Your task to perform on an android device: Clear the cart on newegg.com. Image 0: 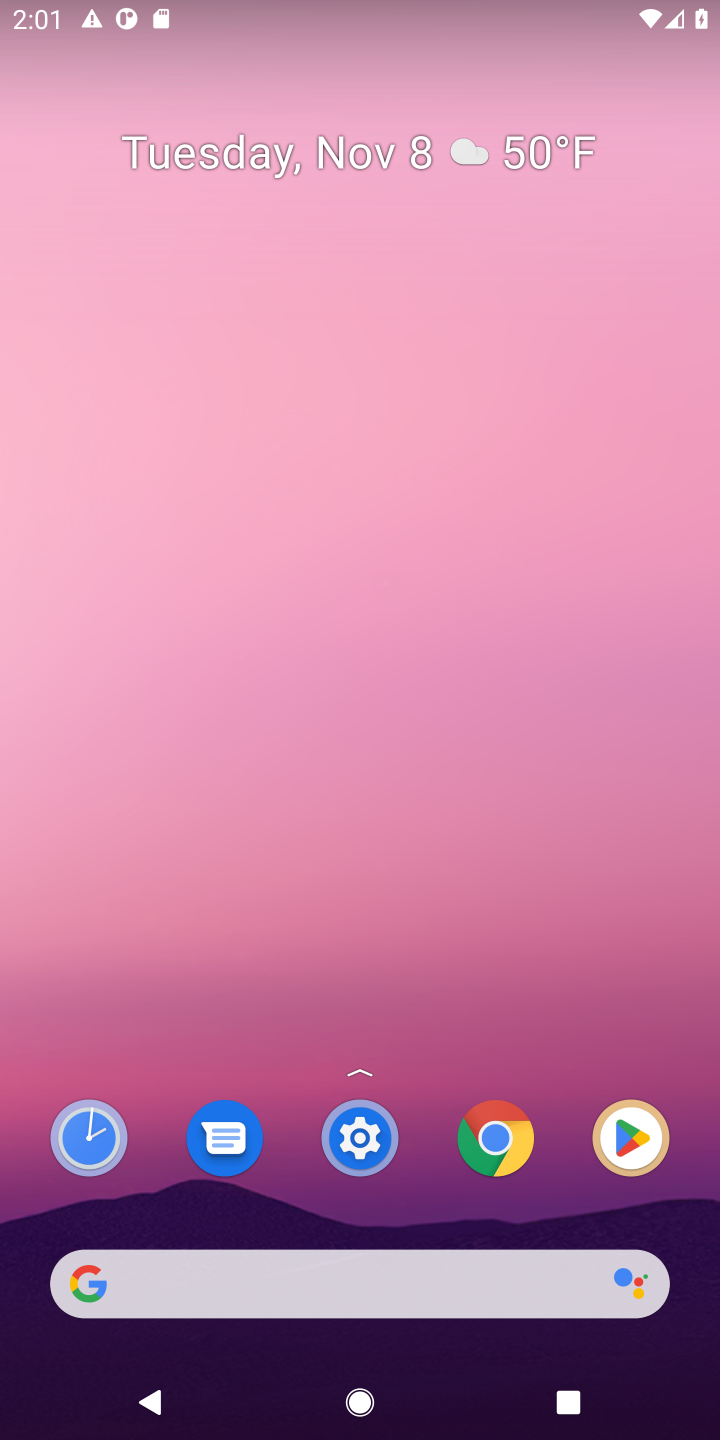
Step 0: click (459, 1307)
Your task to perform on an android device: Clear the cart on newegg.com. Image 1: 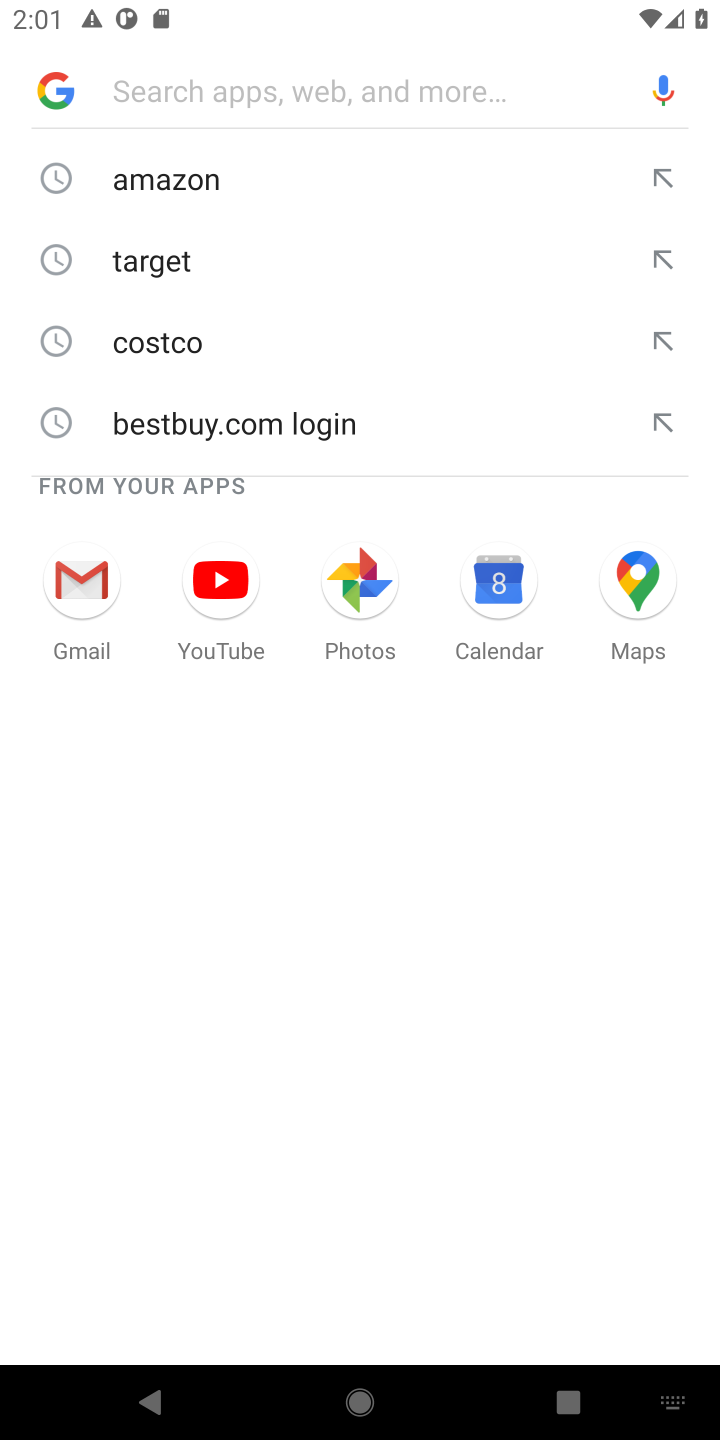
Step 1: type "newegg"
Your task to perform on an android device: Clear the cart on newegg.com. Image 2: 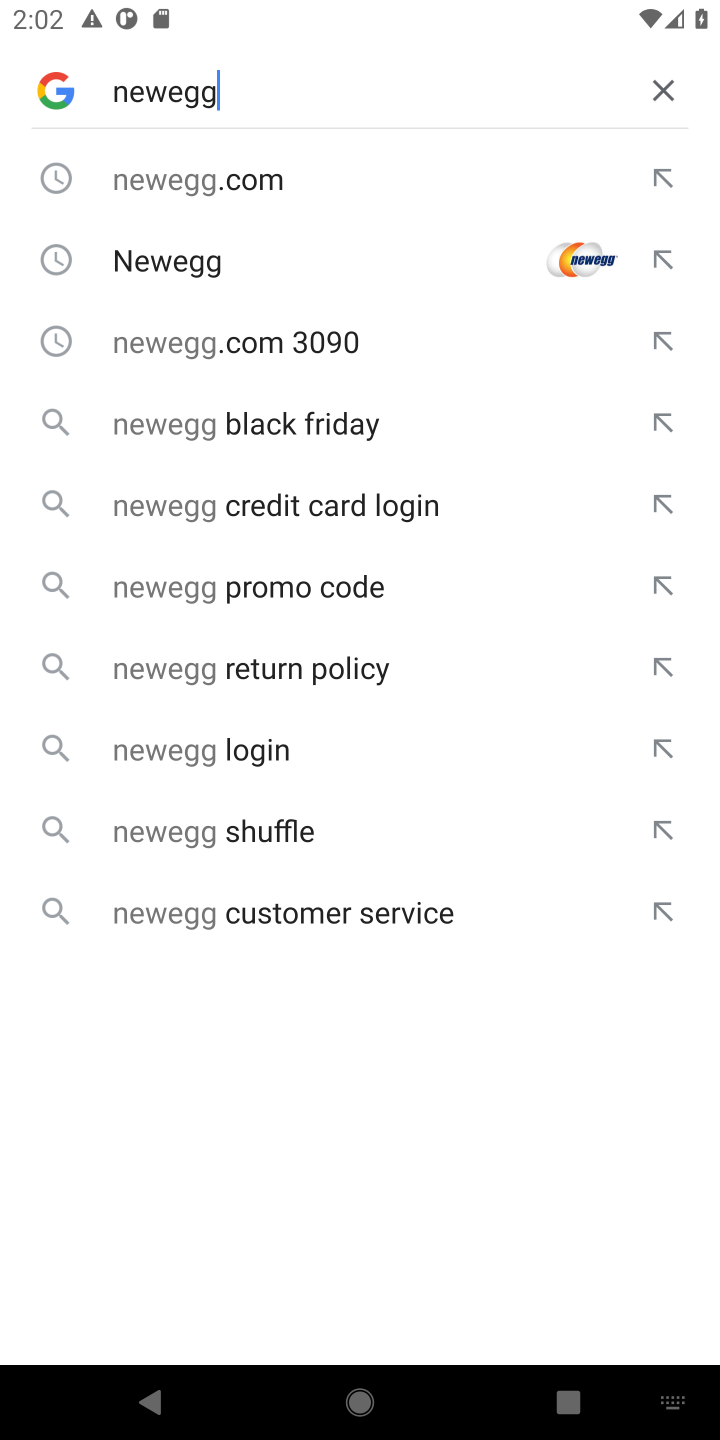
Step 2: click (366, 163)
Your task to perform on an android device: Clear the cart on newegg.com. Image 3: 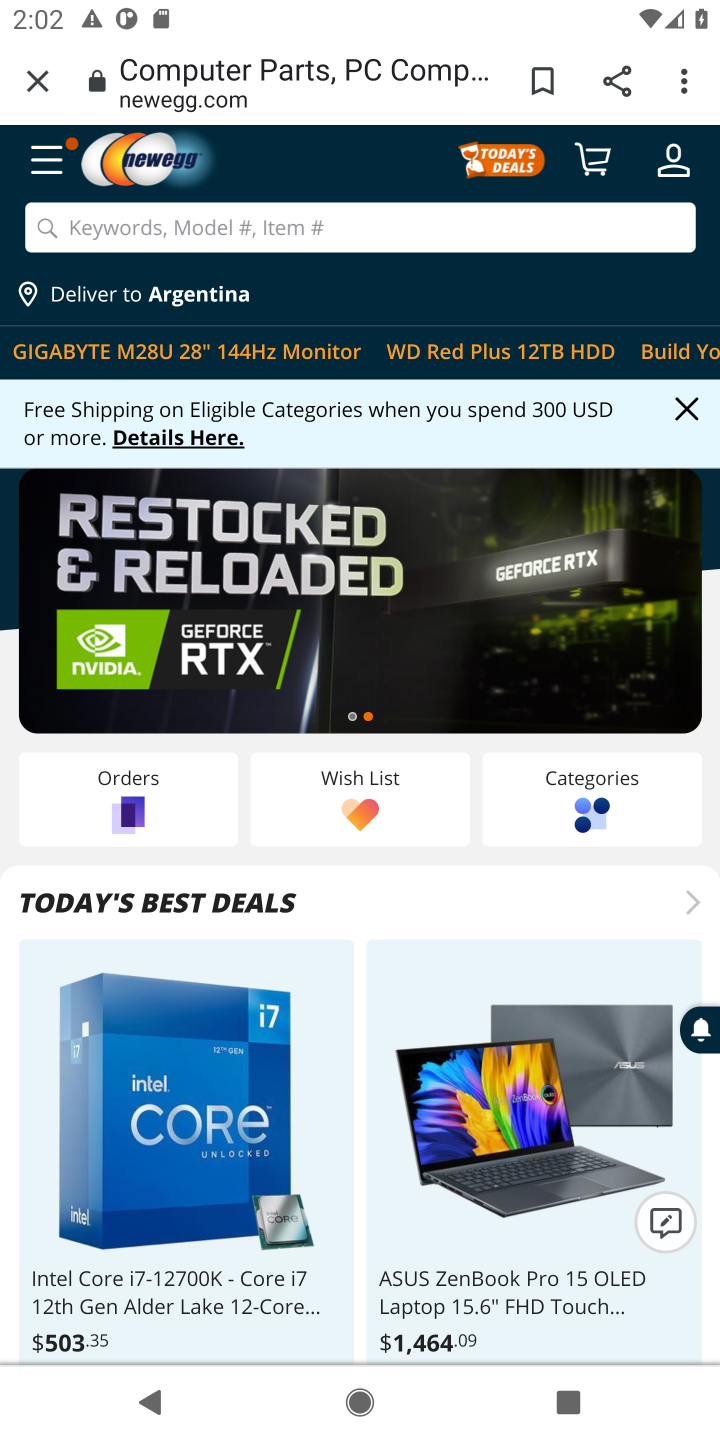
Step 3: task complete